Your task to perform on an android device: Open accessibility settings Image 0: 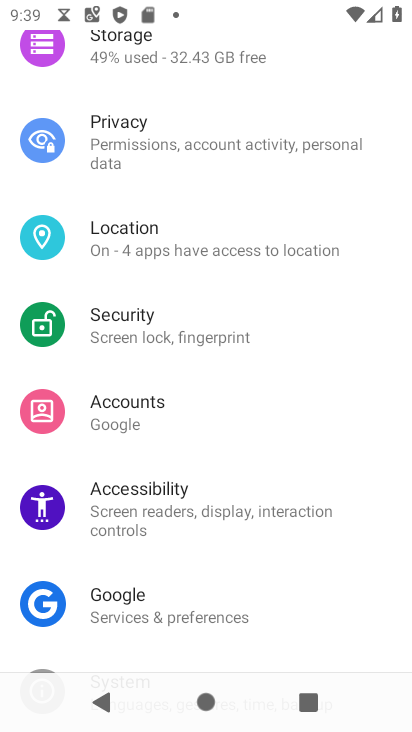
Step 0: press home button
Your task to perform on an android device: Open accessibility settings Image 1: 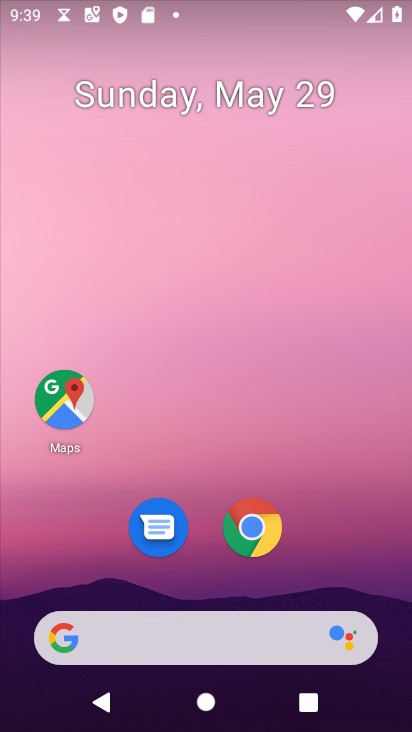
Step 1: drag from (203, 635) to (302, 124)
Your task to perform on an android device: Open accessibility settings Image 2: 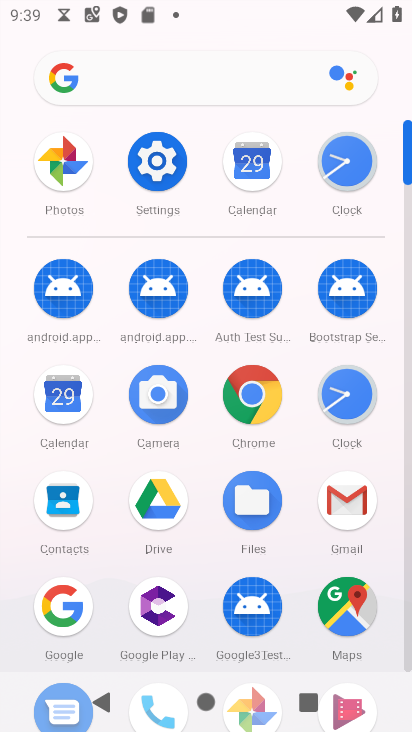
Step 2: click (157, 159)
Your task to perform on an android device: Open accessibility settings Image 3: 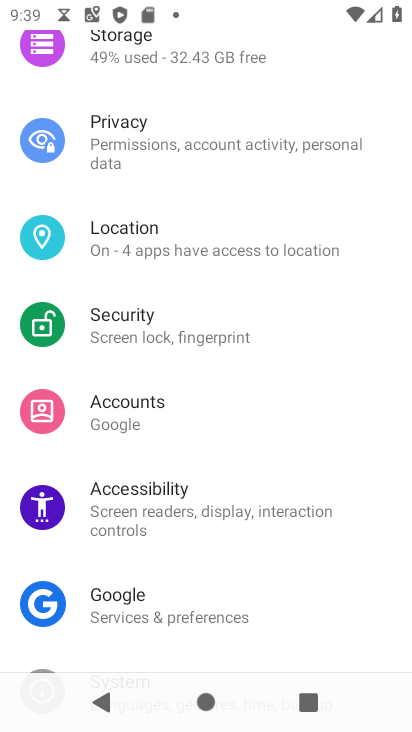
Step 3: click (151, 487)
Your task to perform on an android device: Open accessibility settings Image 4: 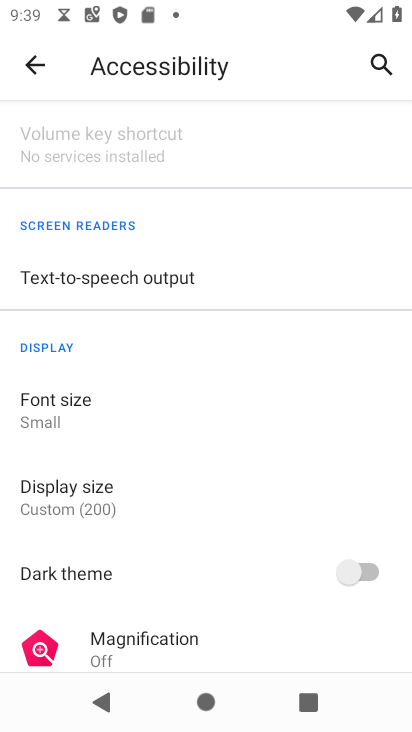
Step 4: task complete